Your task to perform on an android device: Search for "usb-c" on target, select the first entry, and add it to the cart. Image 0: 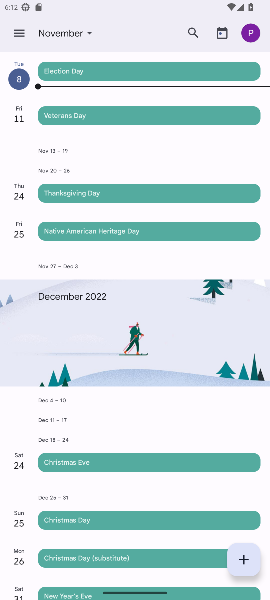
Step 0: press home button
Your task to perform on an android device: Search for "usb-c" on target, select the first entry, and add it to the cart. Image 1: 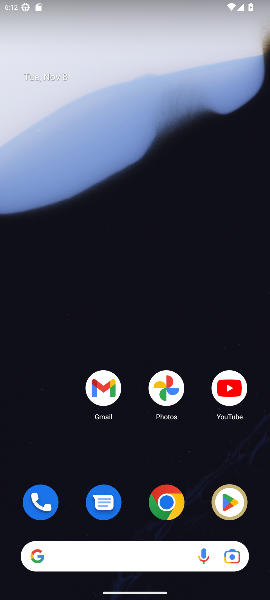
Step 1: drag from (153, 530) to (229, 131)
Your task to perform on an android device: Search for "usb-c" on target, select the first entry, and add it to the cart. Image 2: 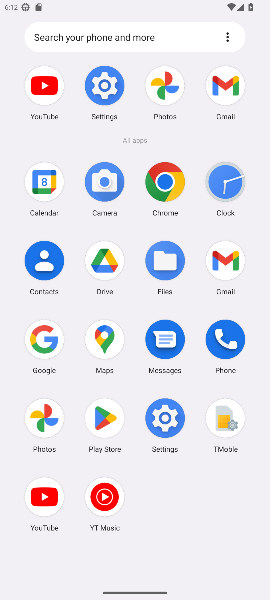
Step 2: click (41, 336)
Your task to perform on an android device: Search for "usb-c" on target, select the first entry, and add it to the cart. Image 3: 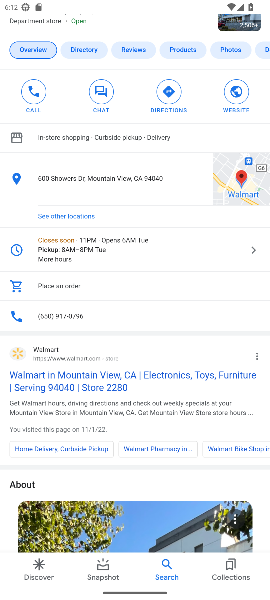
Step 3: drag from (138, 182) to (140, 460)
Your task to perform on an android device: Search for "usb-c" on target, select the first entry, and add it to the cart. Image 4: 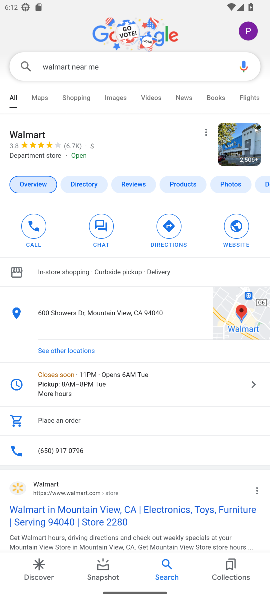
Step 4: click (117, 68)
Your task to perform on an android device: Search for "usb-c" on target, select the first entry, and add it to the cart. Image 5: 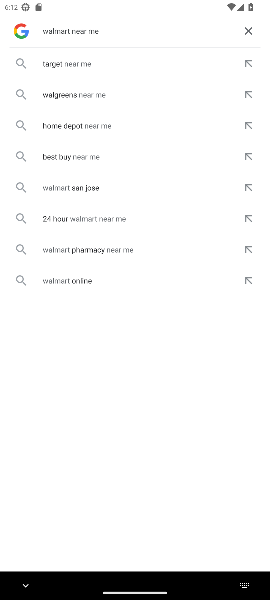
Step 5: click (246, 34)
Your task to perform on an android device: Search for "usb-c" on target, select the first entry, and add it to the cart. Image 6: 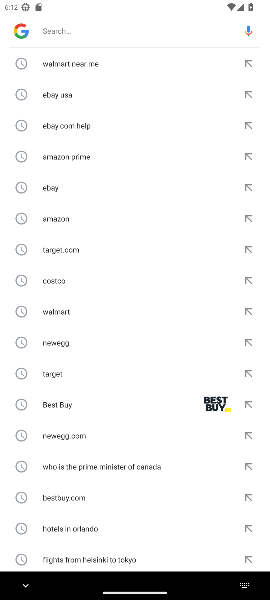
Step 6: click (71, 28)
Your task to perform on an android device: Search for "usb-c" on target, select the first entry, and add it to the cart. Image 7: 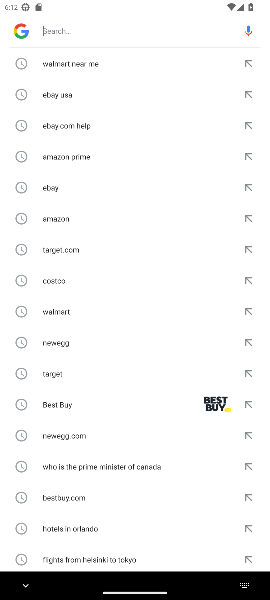
Step 7: type "target "
Your task to perform on an android device: Search for "usb-c" on target, select the first entry, and add it to the cart. Image 8: 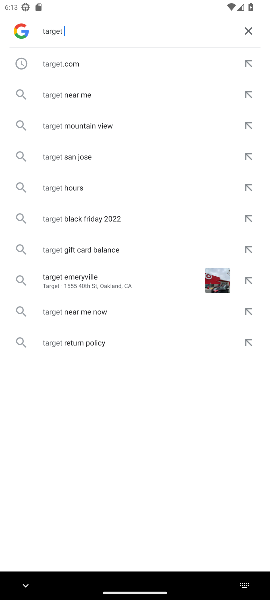
Step 8: click (49, 62)
Your task to perform on an android device: Search for "usb-c" on target, select the first entry, and add it to the cart. Image 9: 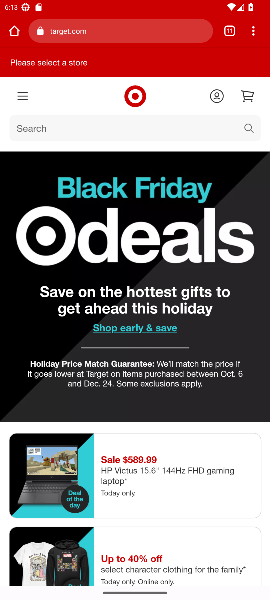
Step 9: click (105, 128)
Your task to perform on an android device: Search for "usb-c" on target, select the first entry, and add it to the cart. Image 10: 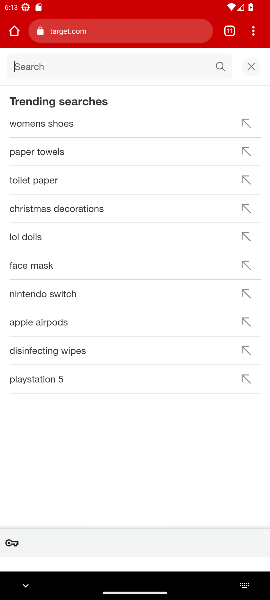
Step 10: click (83, 64)
Your task to perform on an android device: Search for "usb-c" on target, select the first entry, and add it to the cart. Image 11: 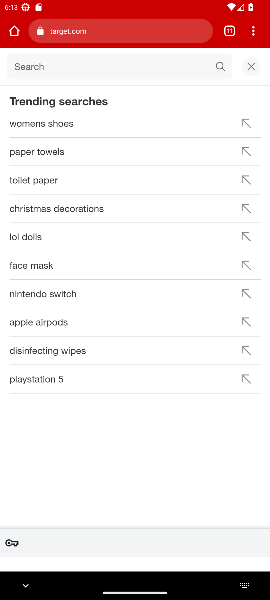
Step 11: click (83, 64)
Your task to perform on an android device: Search for "usb-c" on target, select the first entry, and add it to the cart. Image 12: 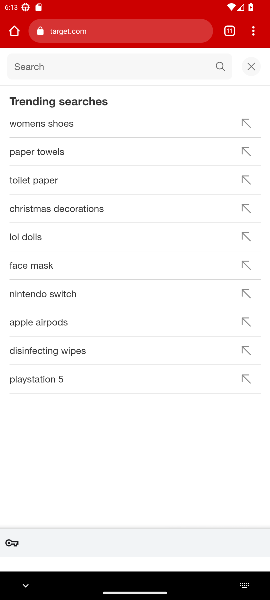
Step 12: type "usb-c "
Your task to perform on an android device: Search for "usb-c" on target, select the first entry, and add it to the cart. Image 13: 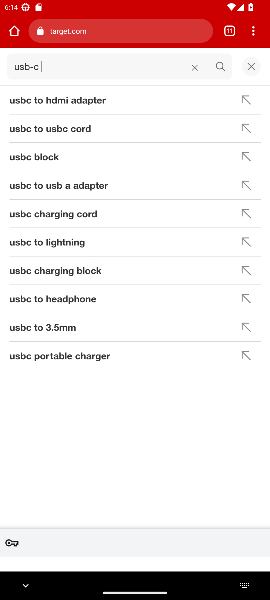
Step 13: click (219, 66)
Your task to perform on an android device: Search for "usb-c" on target, select the first entry, and add it to the cart. Image 14: 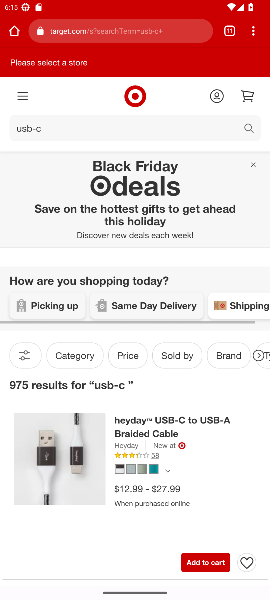
Step 14: click (160, 425)
Your task to perform on an android device: Search for "usb-c" on target, select the first entry, and add it to the cart. Image 15: 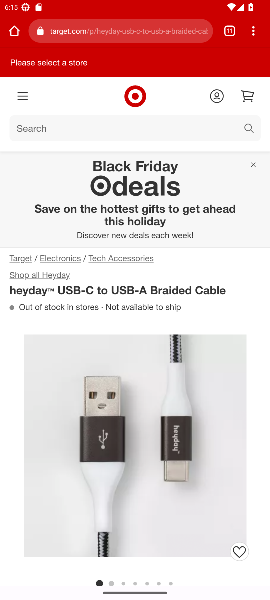
Step 15: drag from (156, 508) to (170, 321)
Your task to perform on an android device: Search for "usb-c" on target, select the first entry, and add it to the cart. Image 16: 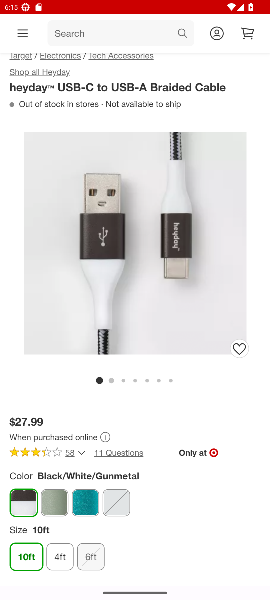
Step 16: drag from (141, 531) to (180, 257)
Your task to perform on an android device: Search for "usb-c" on target, select the first entry, and add it to the cart. Image 17: 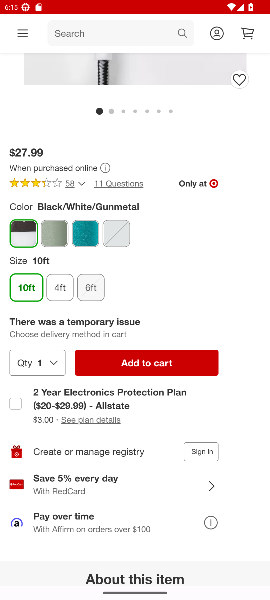
Step 17: click (158, 357)
Your task to perform on an android device: Search for "usb-c" on target, select the first entry, and add it to the cart. Image 18: 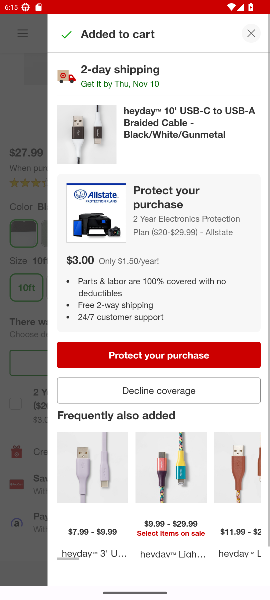
Step 18: task complete